Your task to perform on an android device: Go to Maps Image 0: 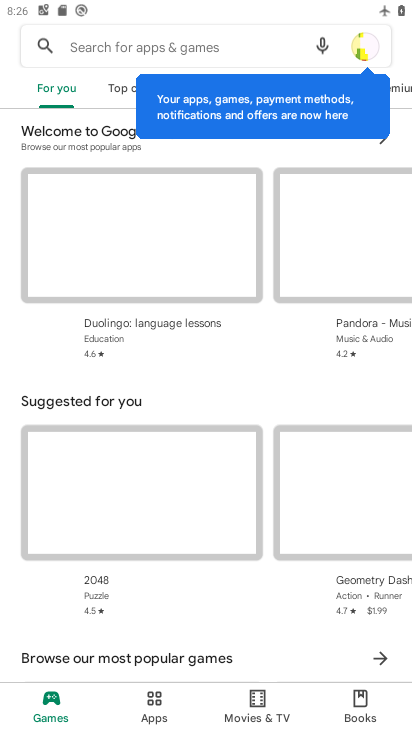
Step 0: press home button
Your task to perform on an android device: Go to Maps Image 1: 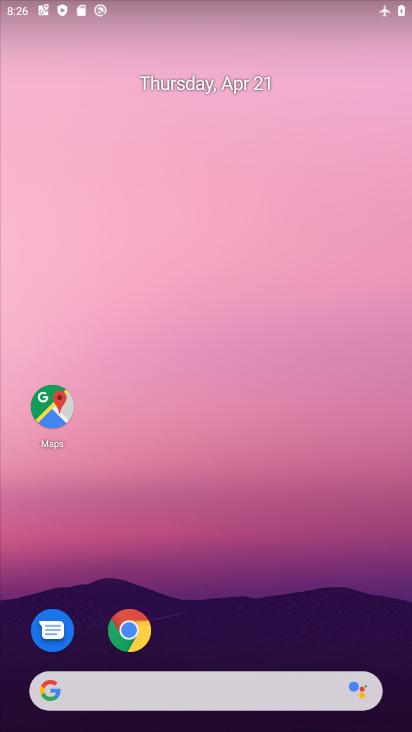
Step 1: click (49, 398)
Your task to perform on an android device: Go to Maps Image 2: 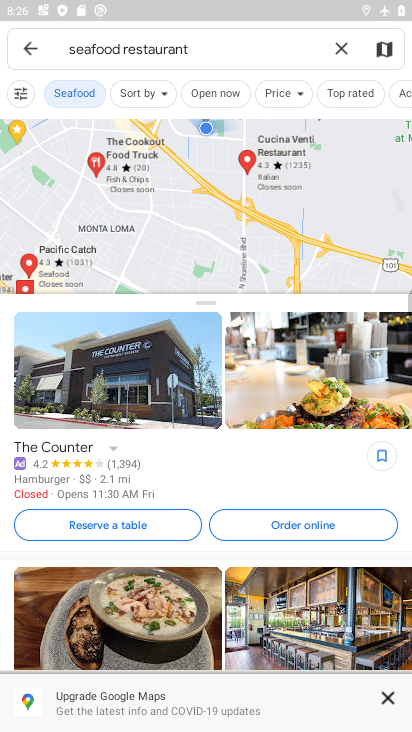
Step 2: task complete